Your task to perform on an android device: Do I have any events tomorrow? Image 0: 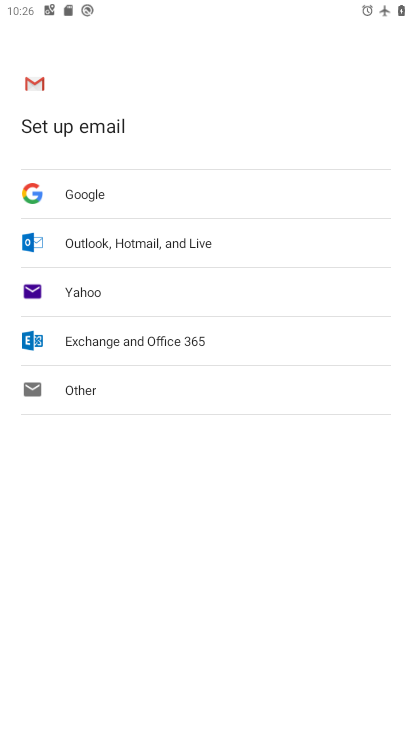
Step 0: press home button
Your task to perform on an android device: Do I have any events tomorrow? Image 1: 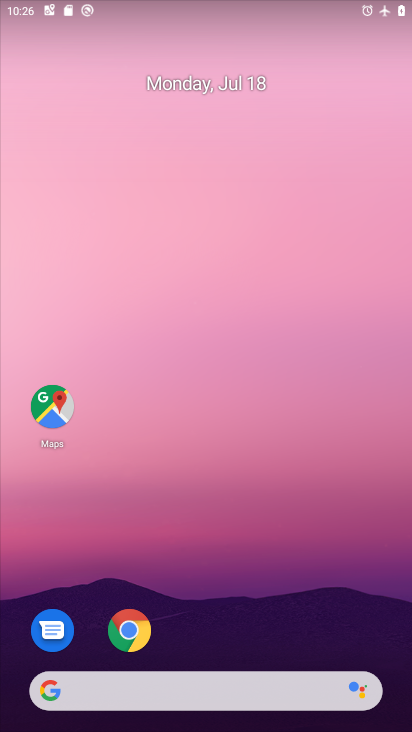
Step 1: drag from (197, 622) to (200, 221)
Your task to perform on an android device: Do I have any events tomorrow? Image 2: 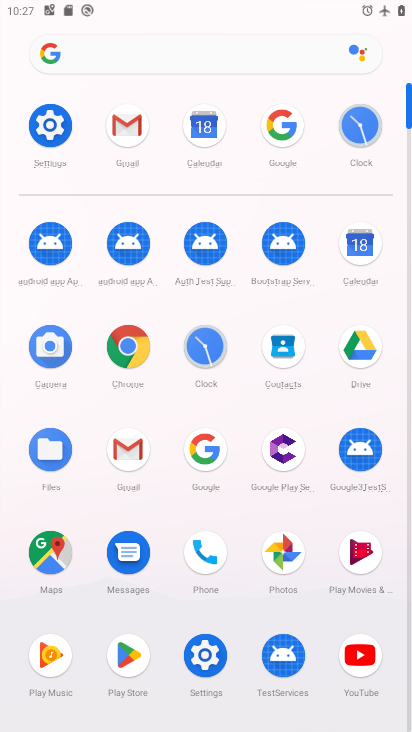
Step 2: click (353, 255)
Your task to perform on an android device: Do I have any events tomorrow? Image 3: 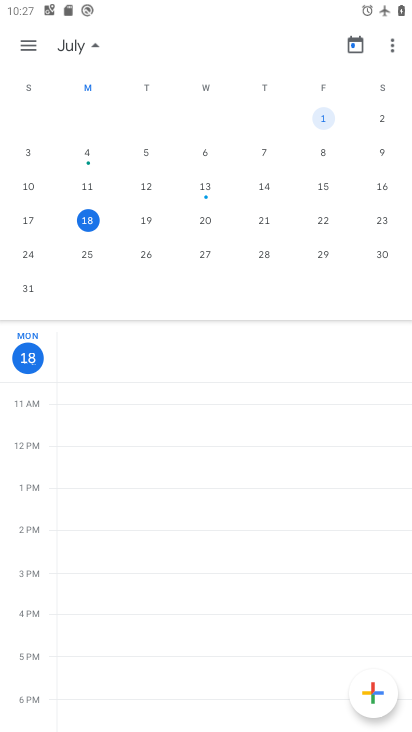
Step 3: click (139, 224)
Your task to perform on an android device: Do I have any events tomorrow? Image 4: 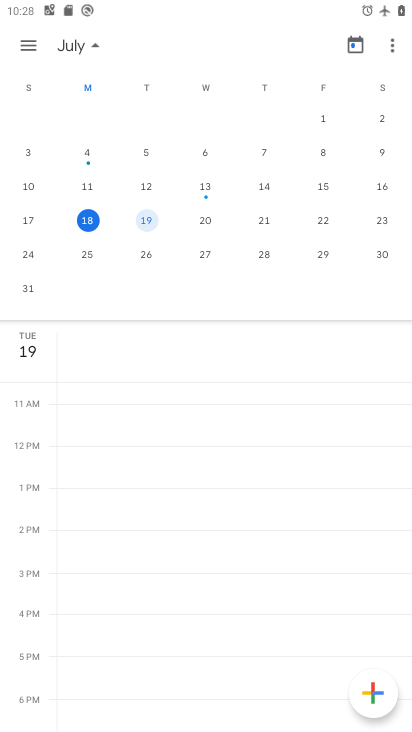
Step 4: task complete